Your task to perform on an android device: Clear all items from cart on newegg.com. Add razer naga to the cart on newegg.com Image 0: 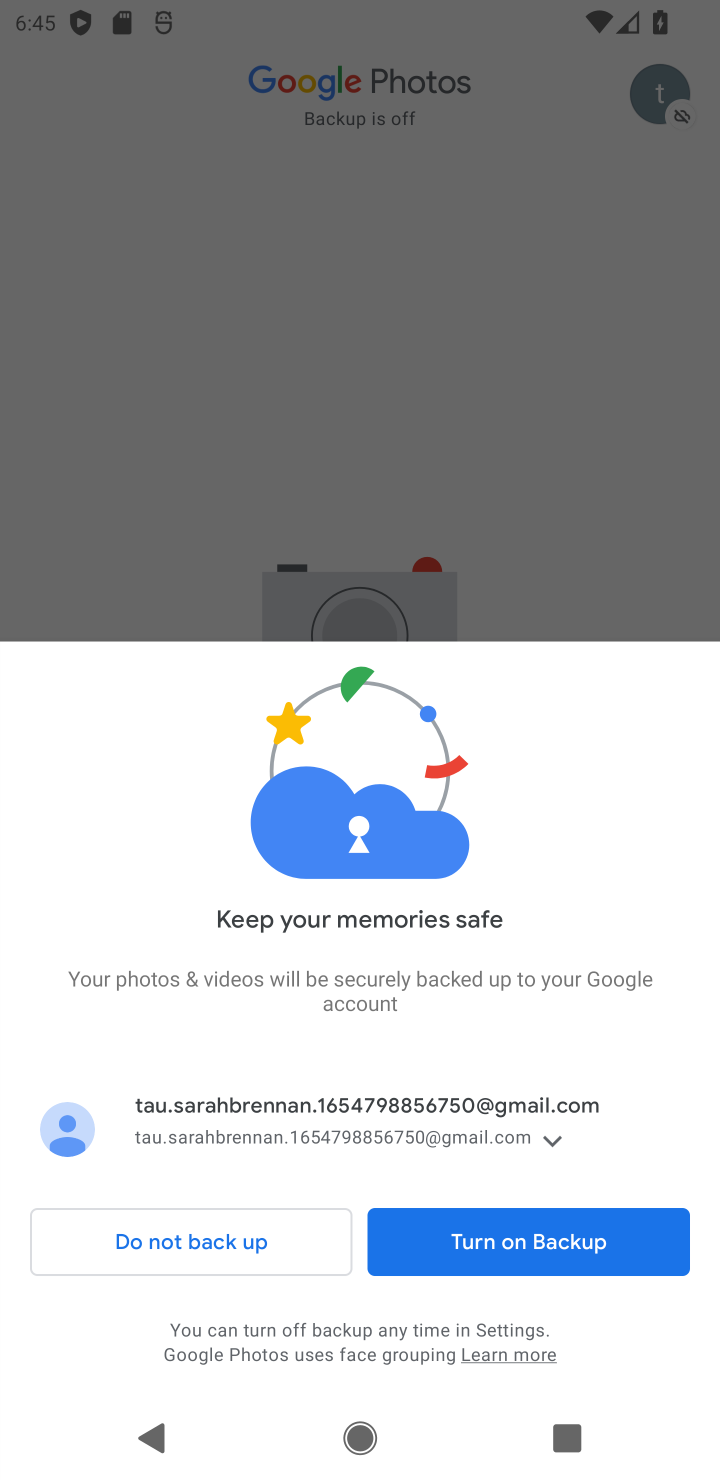
Step 0: press home button
Your task to perform on an android device: Clear all items from cart on newegg.com. Add razer naga to the cart on newegg.com Image 1: 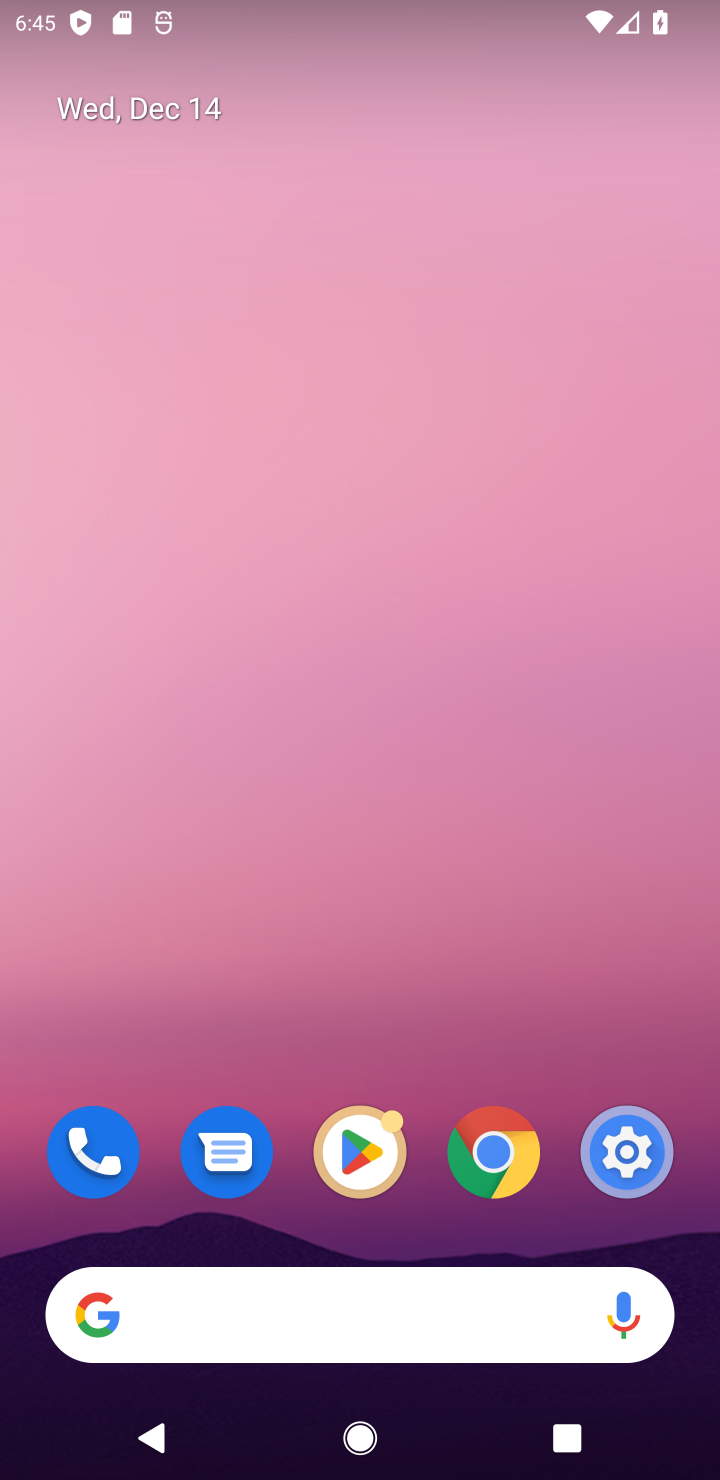
Step 1: click (506, 1167)
Your task to perform on an android device: Clear all items from cart on newegg.com. Add razer naga to the cart on newegg.com Image 2: 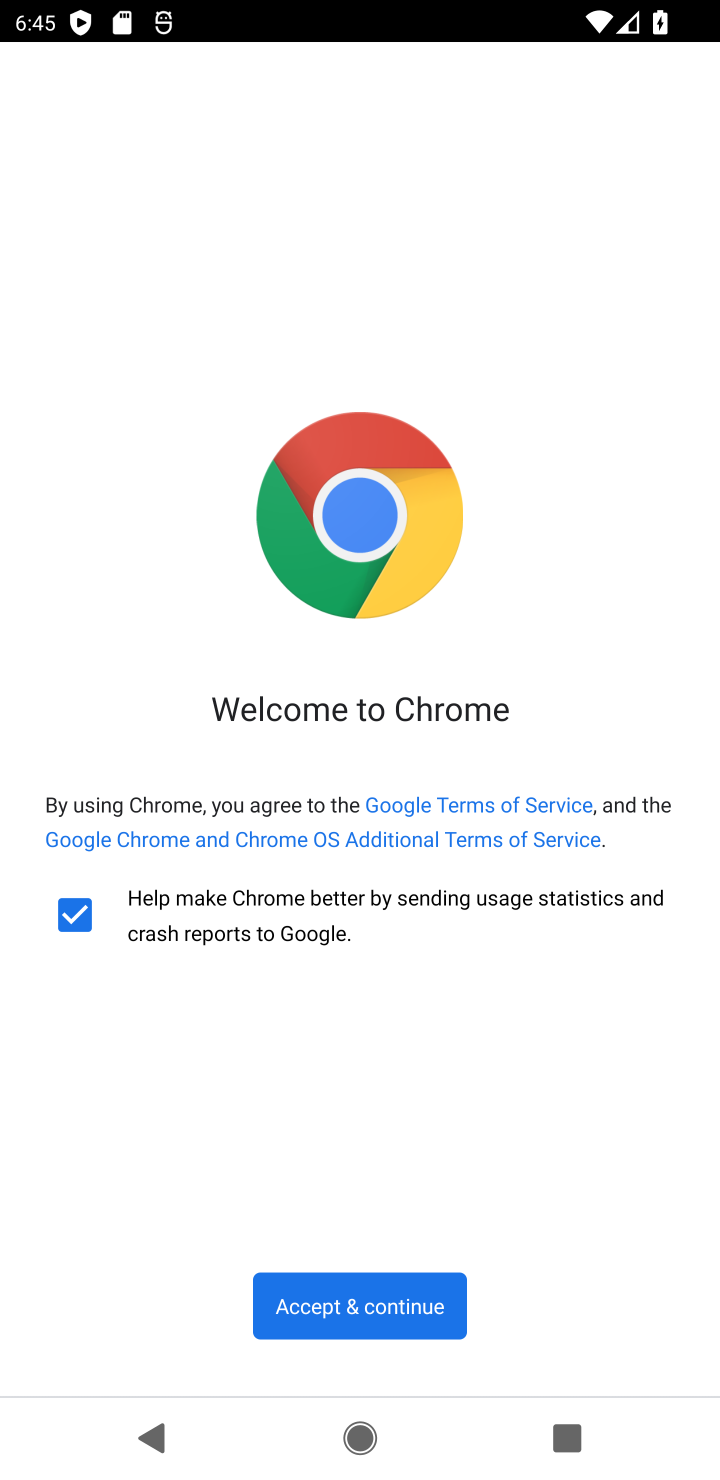
Step 2: click (306, 1310)
Your task to perform on an android device: Clear all items from cart on newegg.com. Add razer naga to the cart on newegg.com Image 3: 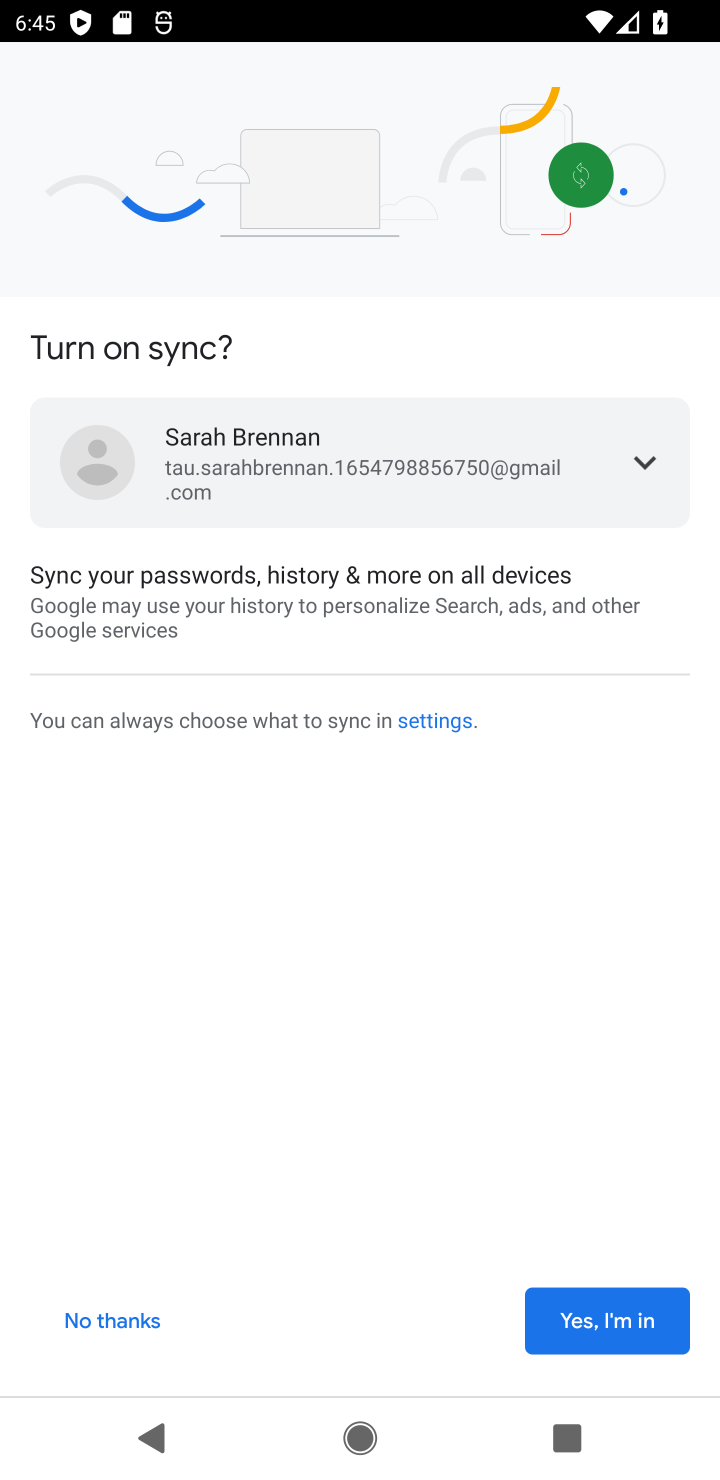
Step 3: click (51, 1326)
Your task to perform on an android device: Clear all items from cart on newegg.com. Add razer naga to the cart on newegg.com Image 4: 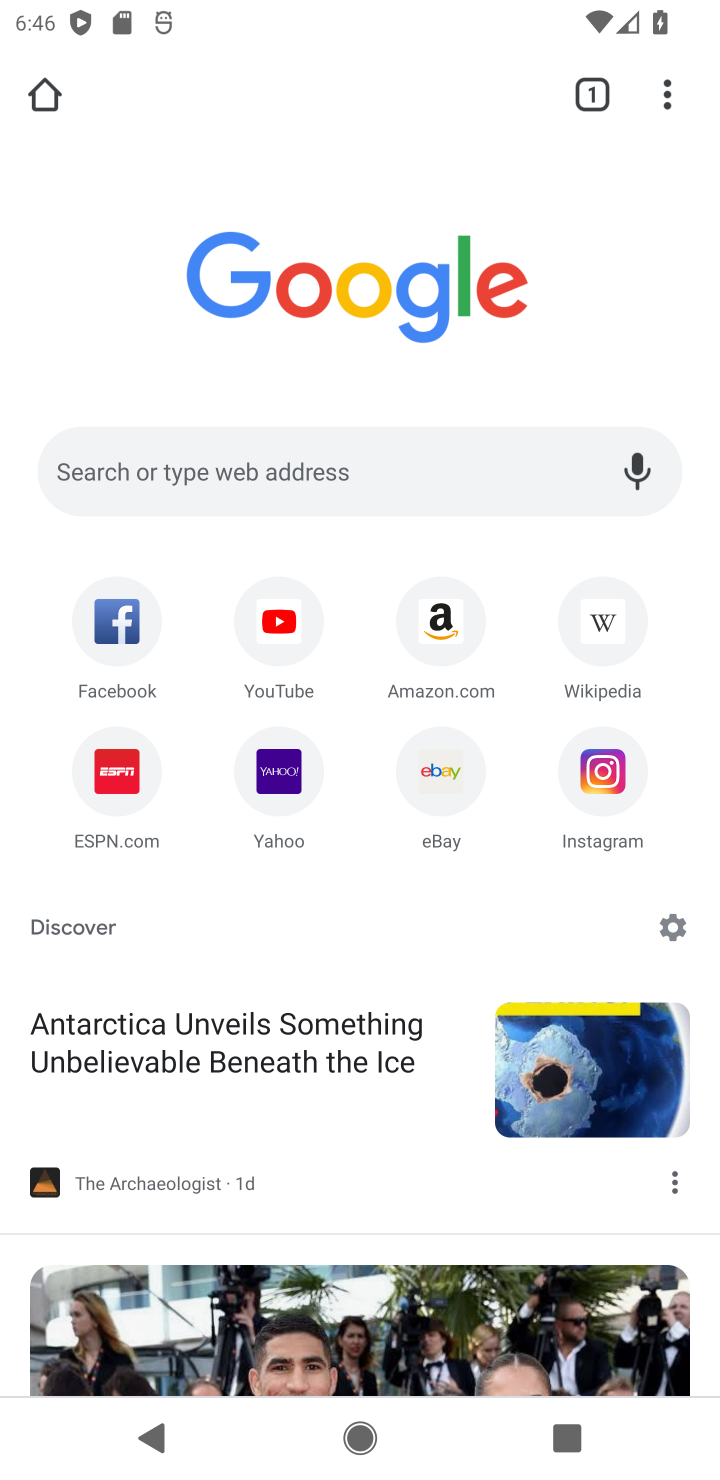
Step 4: click (259, 474)
Your task to perform on an android device: Clear all items from cart on newegg.com. Add razer naga to the cart on newegg.com Image 5: 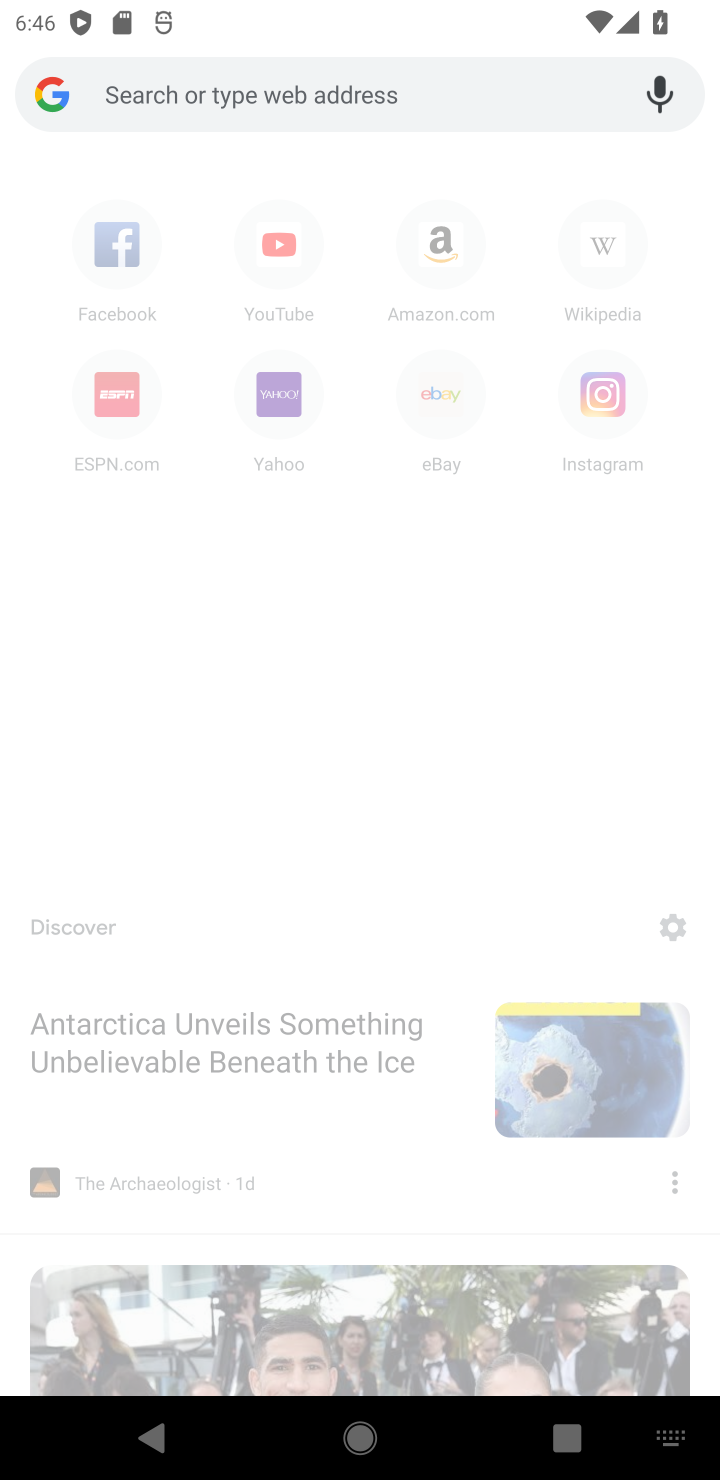
Step 5: type "newegg.com"
Your task to perform on an android device: Clear all items from cart on newegg.com. Add razer naga to the cart on newegg.com Image 6: 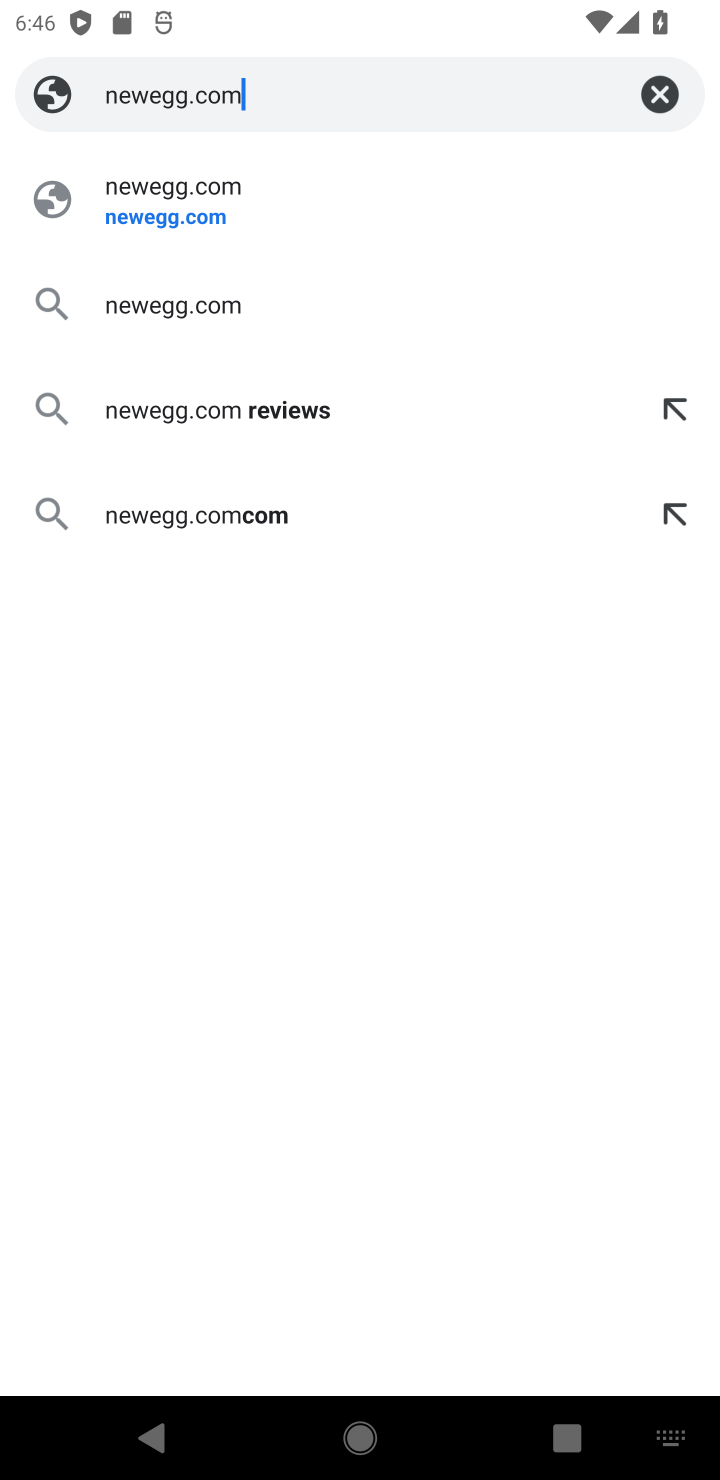
Step 6: click (167, 227)
Your task to perform on an android device: Clear all items from cart on newegg.com. Add razer naga to the cart on newegg.com Image 7: 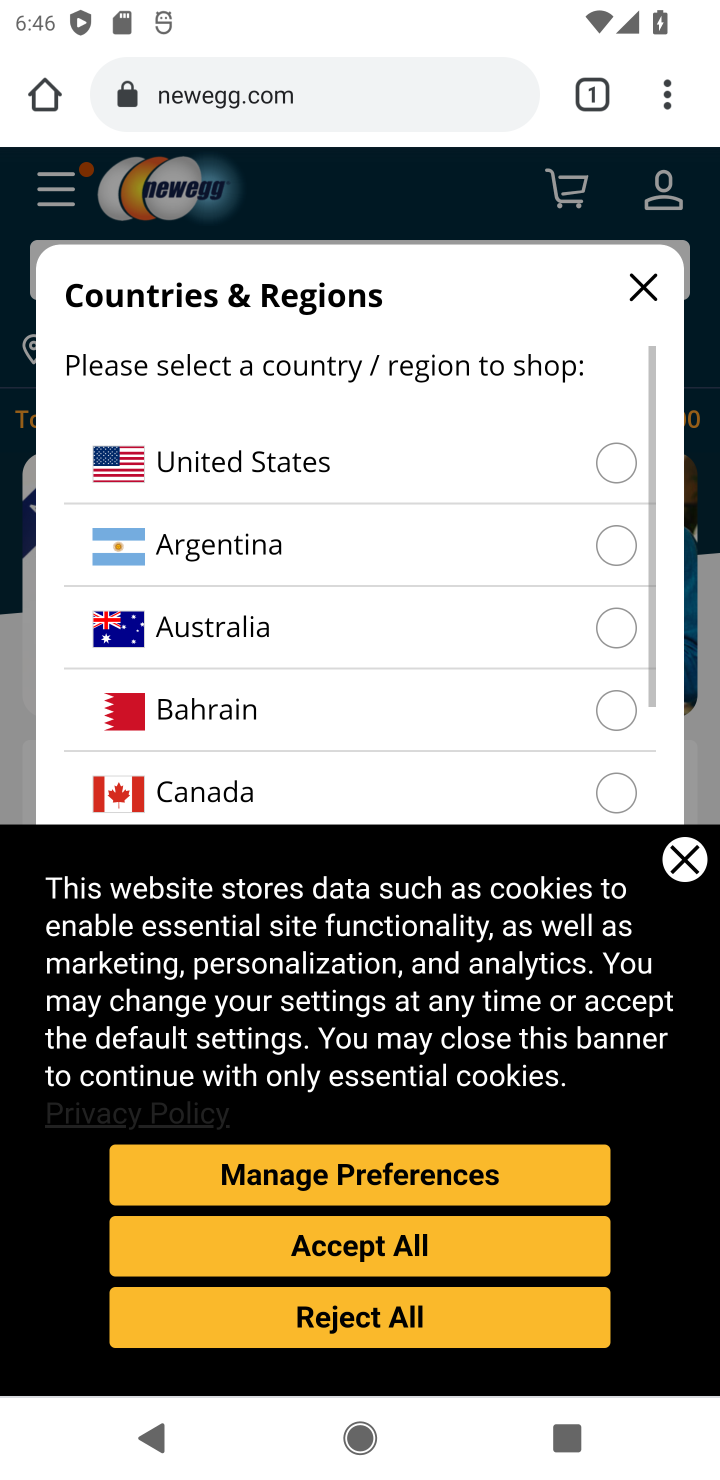
Step 7: click (688, 851)
Your task to perform on an android device: Clear all items from cart on newegg.com. Add razer naga to the cart on newegg.com Image 8: 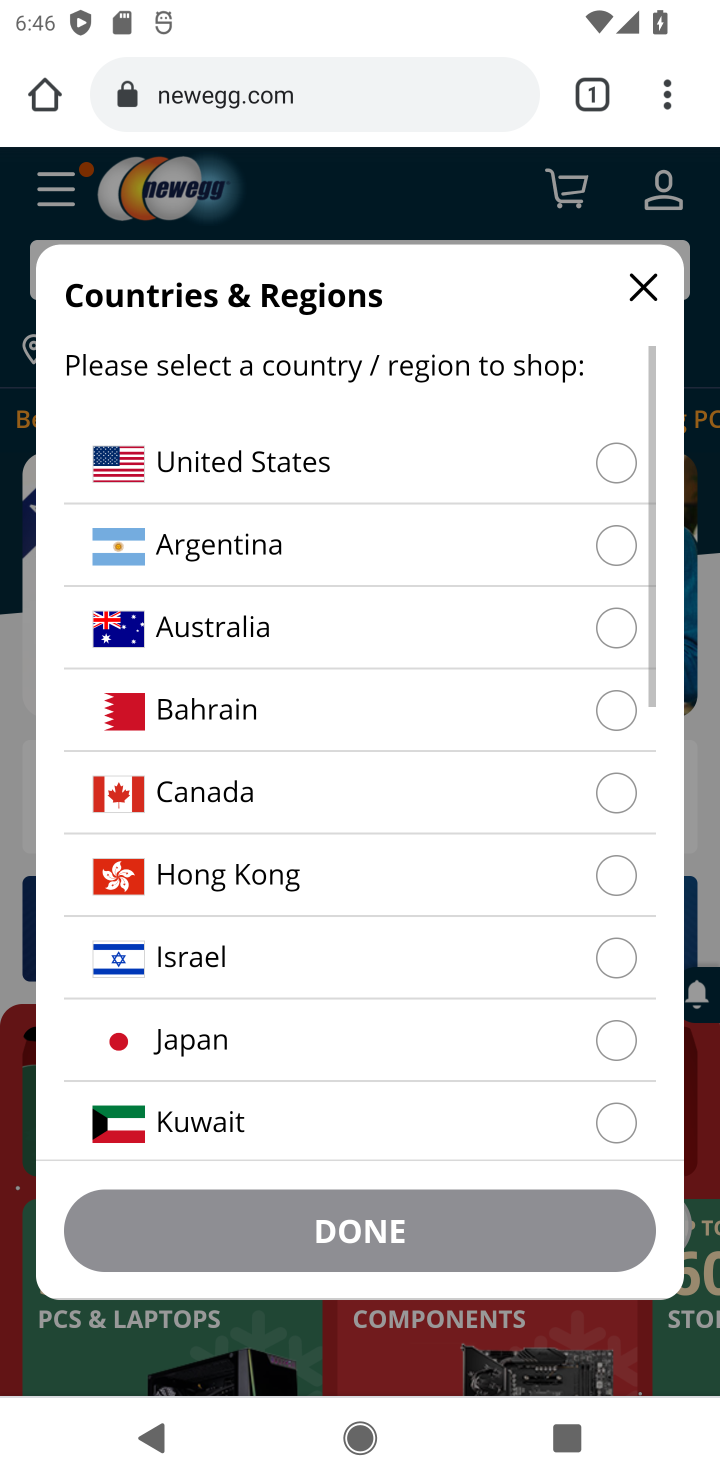
Step 8: click (244, 463)
Your task to perform on an android device: Clear all items from cart on newegg.com. Add razer naga to the cart on newegg.com Image 9: 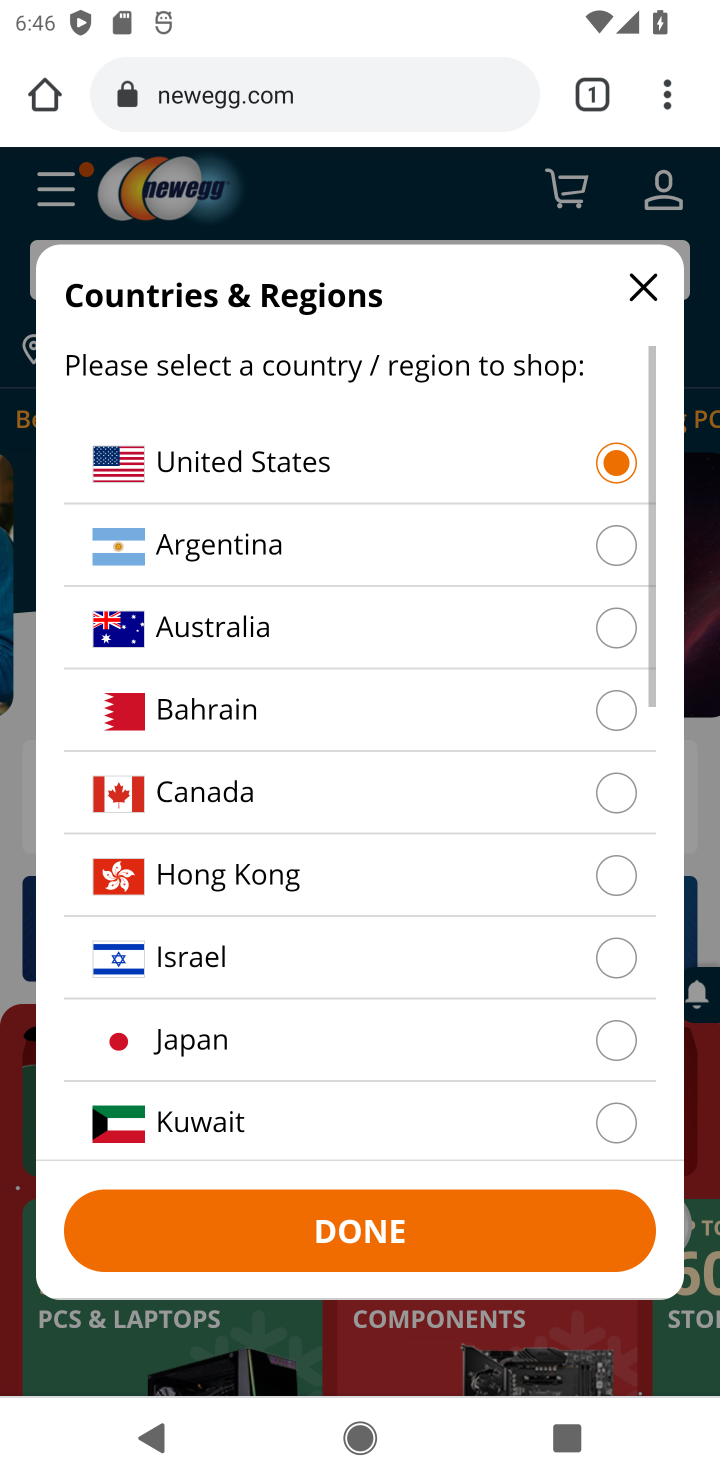
Step 9: click (345, 1226)
Your task to perform on an android device: Clear all items from cart on newegg.com. Add razer naga to the cart on newegg.com Image 10: 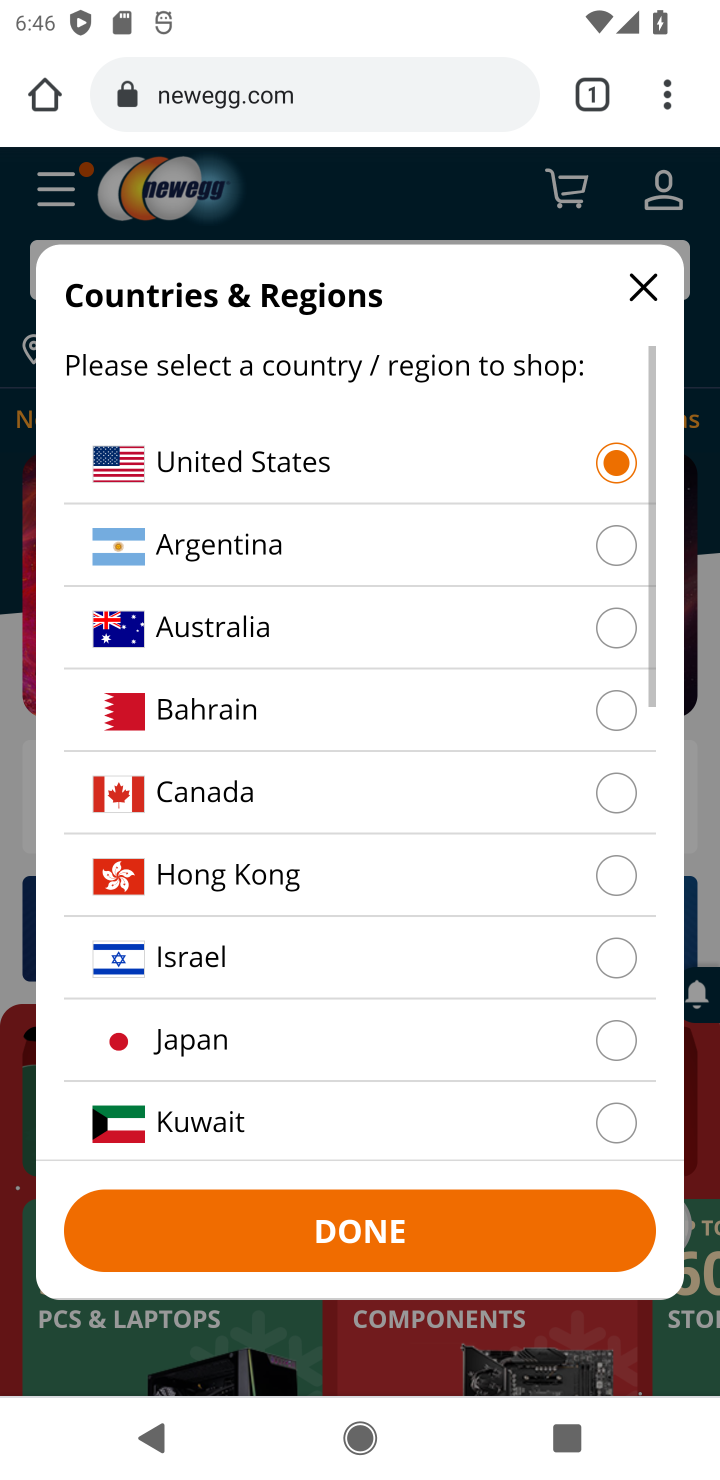
Step 10: click (345, 1226)
Your task to perform on an android device: Clear all items from cart on newegg.com. Add razer naga to the cart on newegg.com Image 11: 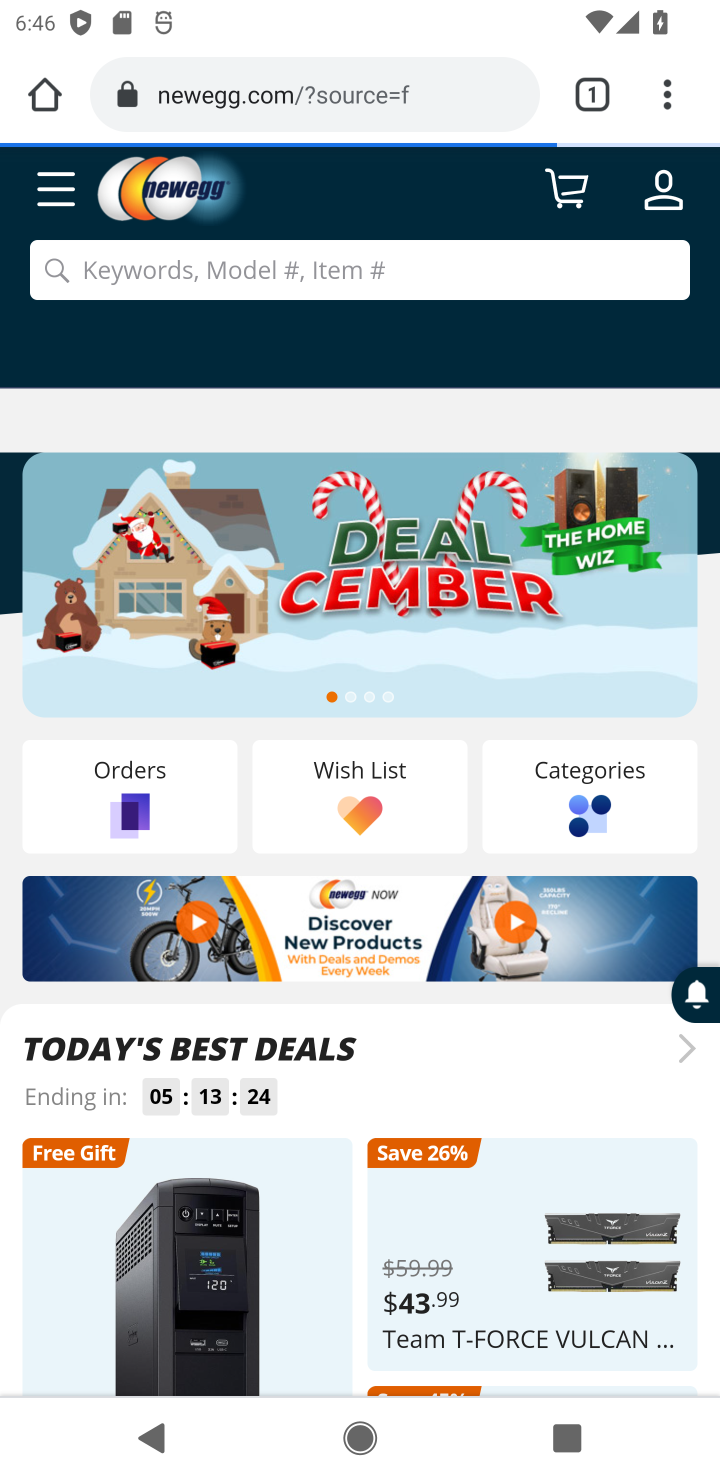
Step 11: click (549, 210)
Your task to perform on an android device: Clear all items from cart on newegg.com. Add razer naga to the cart on newegg.com Image 12: 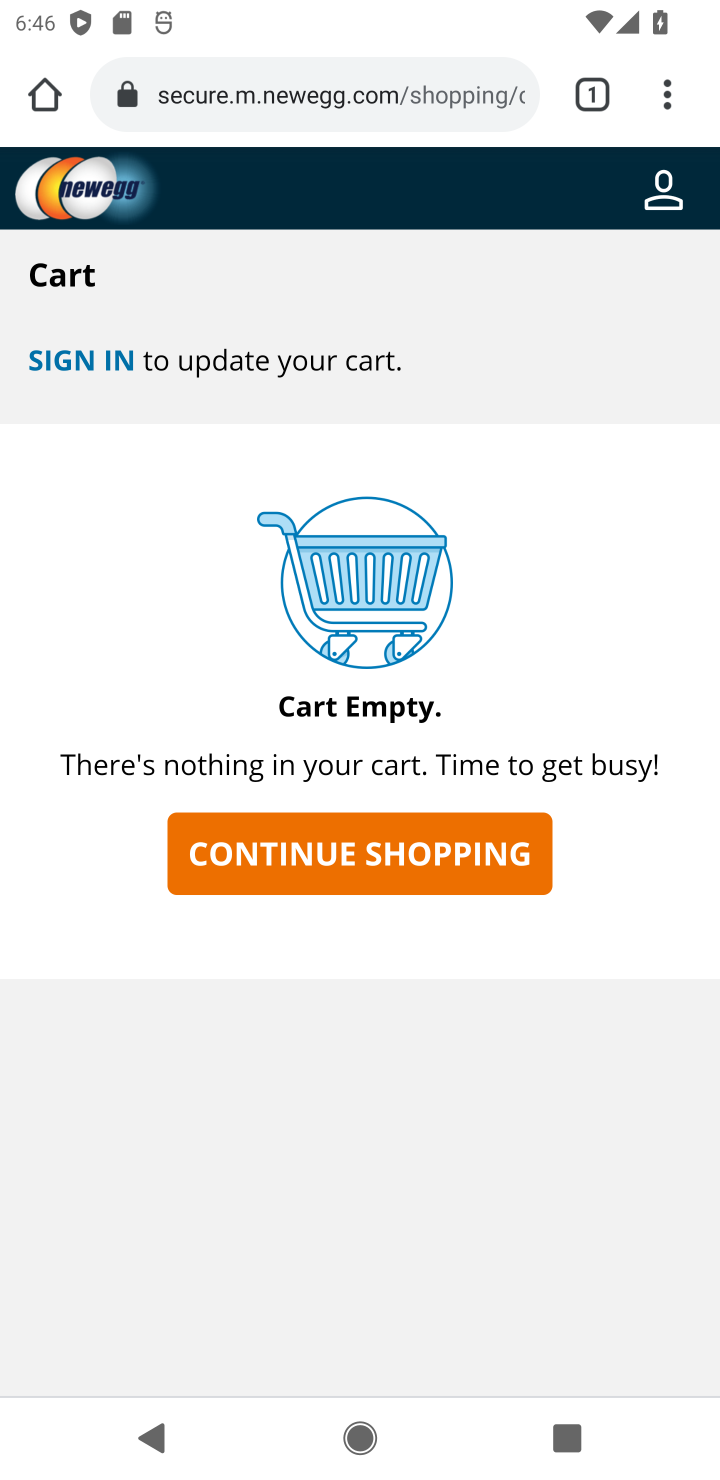
Step 12: click (438, 835)
Your task to perform on an android device: Clear all items from cart on newegg.com. Add razer naga to the cart on newegg.com Image 13: 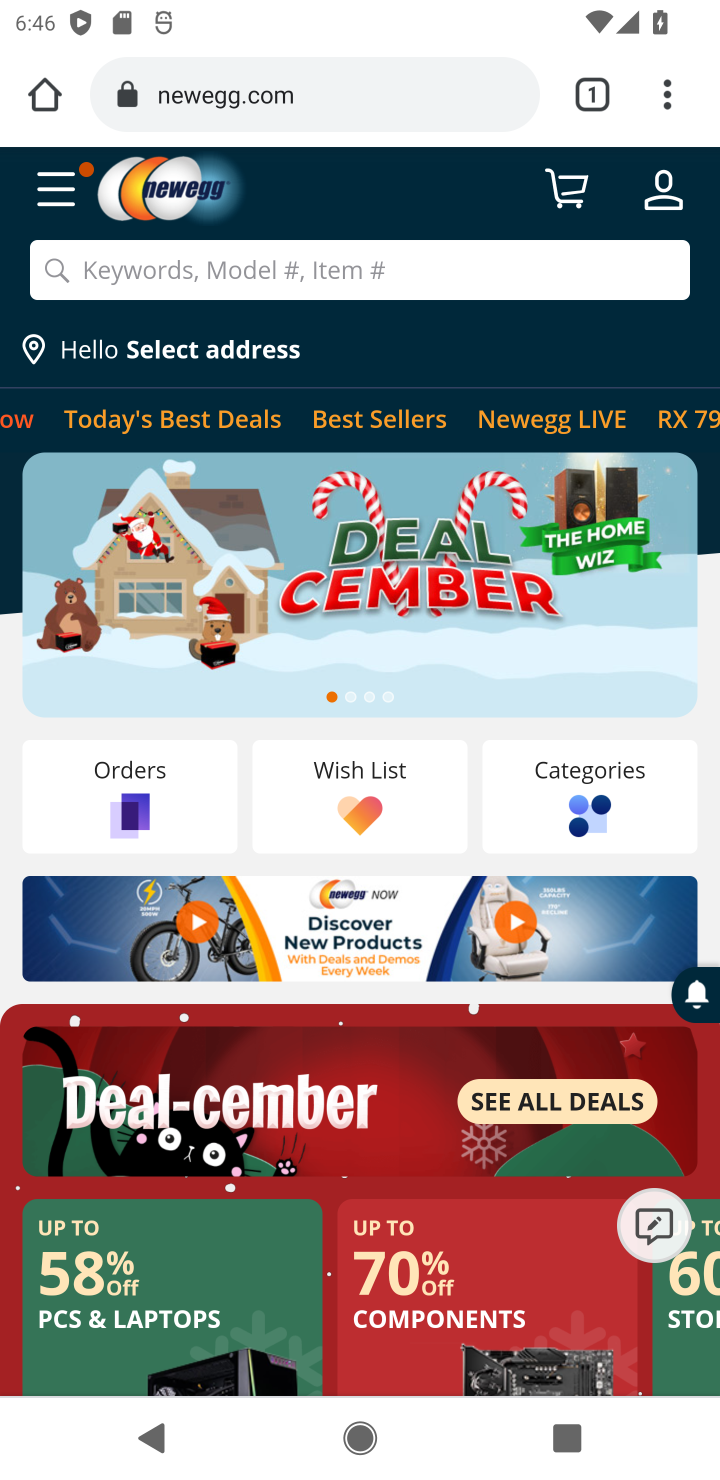
Step 13: click (213, 274)
Your task to perform on an android device: Clear all items from cart on newegg.com. Add razer naga to the cart on newegg.com Image 14: 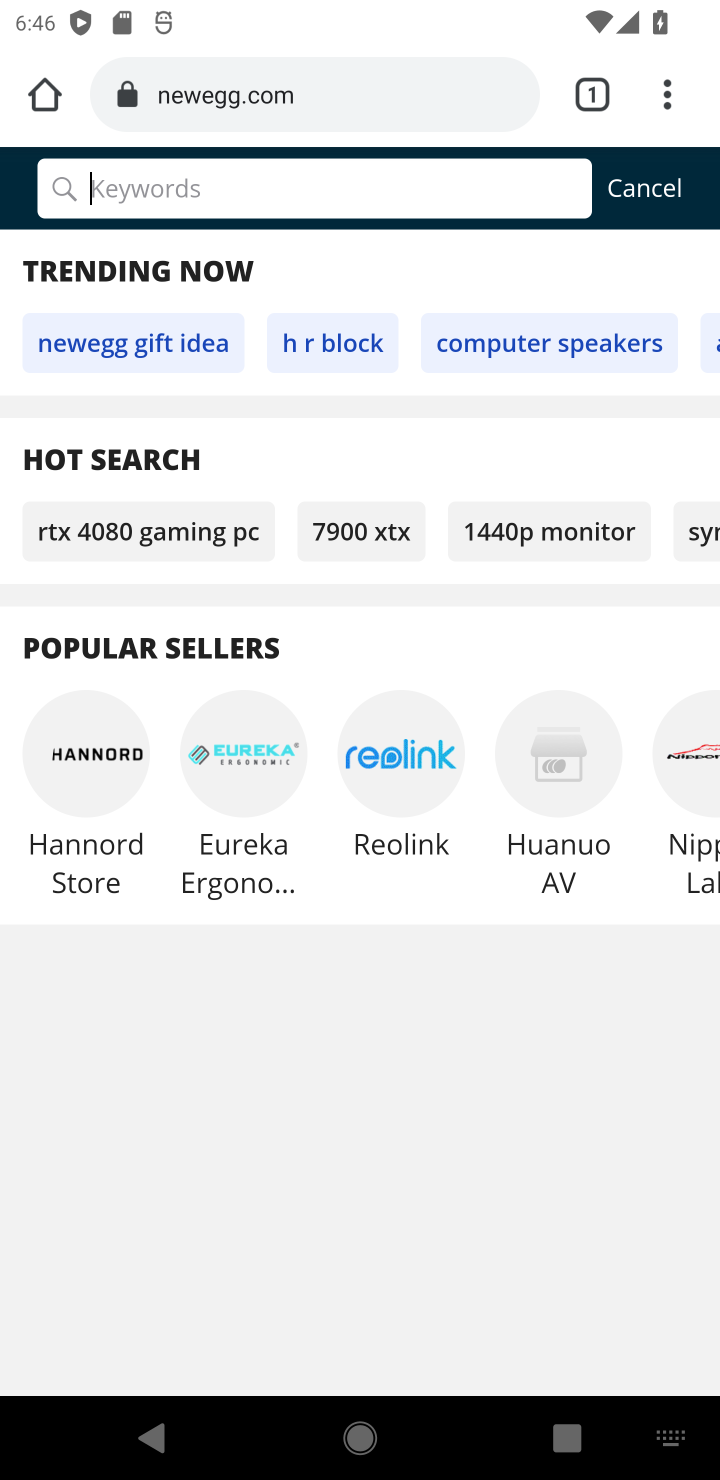
Step 14: type "razer naga"
Your task to perform on an android device: Clear all items from cart on newegg.com. Add razer naga to the cart on newegg.com Image 15: 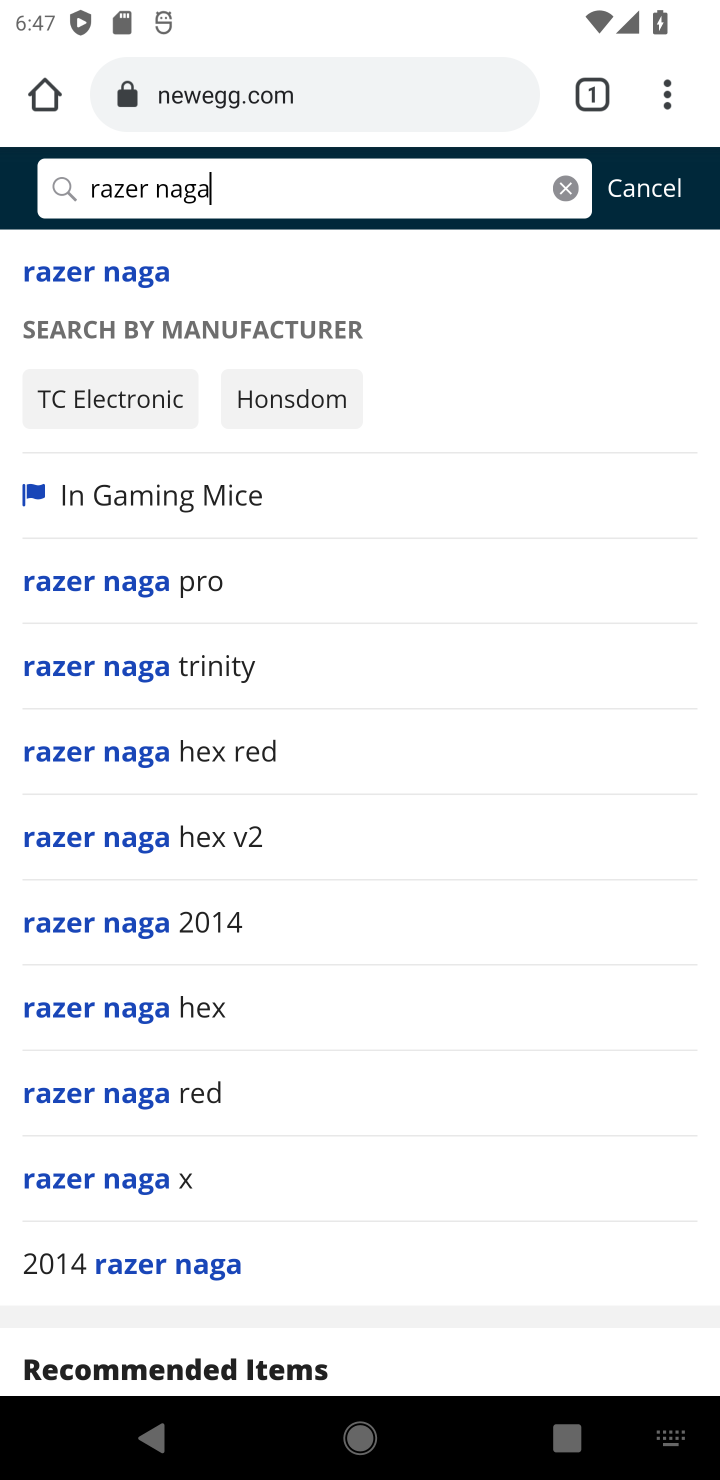
Step 15: click (120, 281)
Your task to perform on an android device: Clear all items from cart on newegg.com. Add razer naga to the cart on newegg.com Image 16: 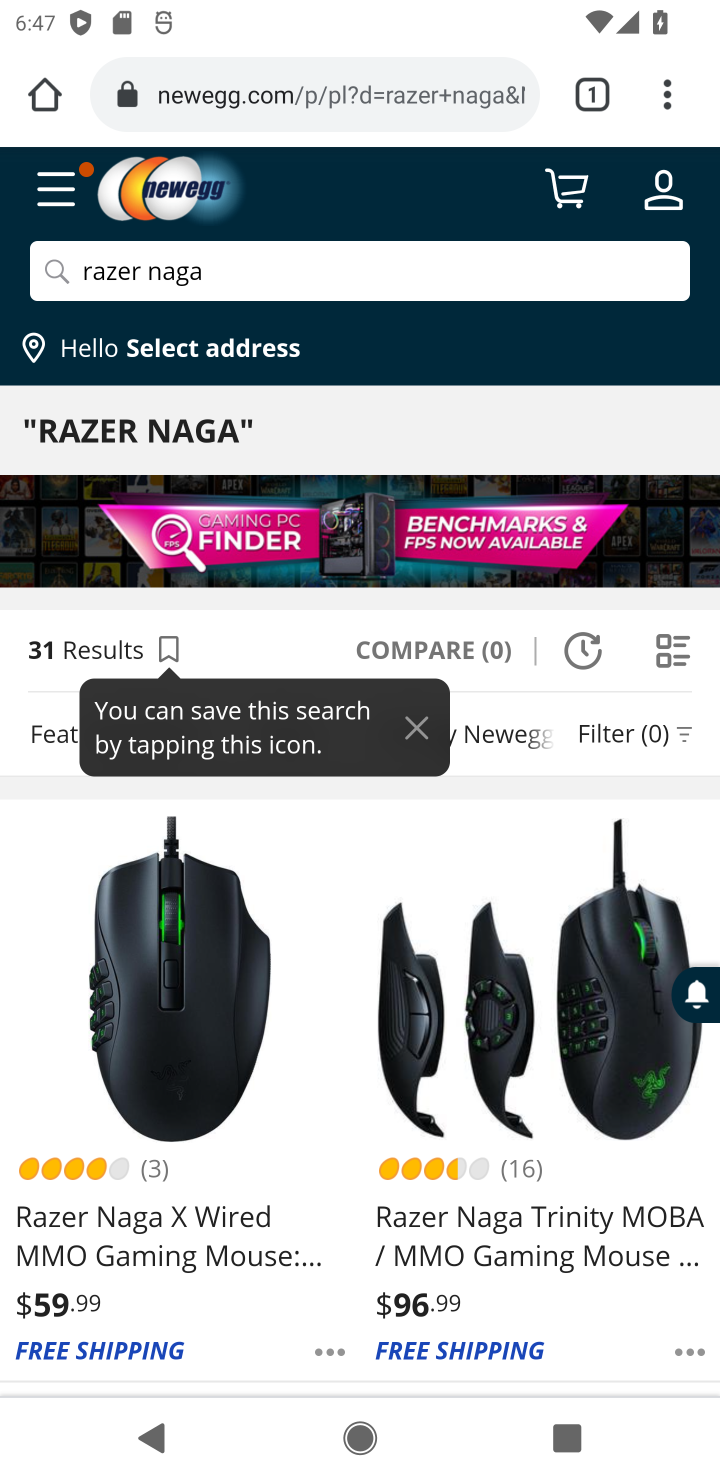
Step 16: click (58, 1233)
Your task to perform on an android device: Clear all items from cart on newegg.com. Add razer naga to the cart on newegg.com Image 17: 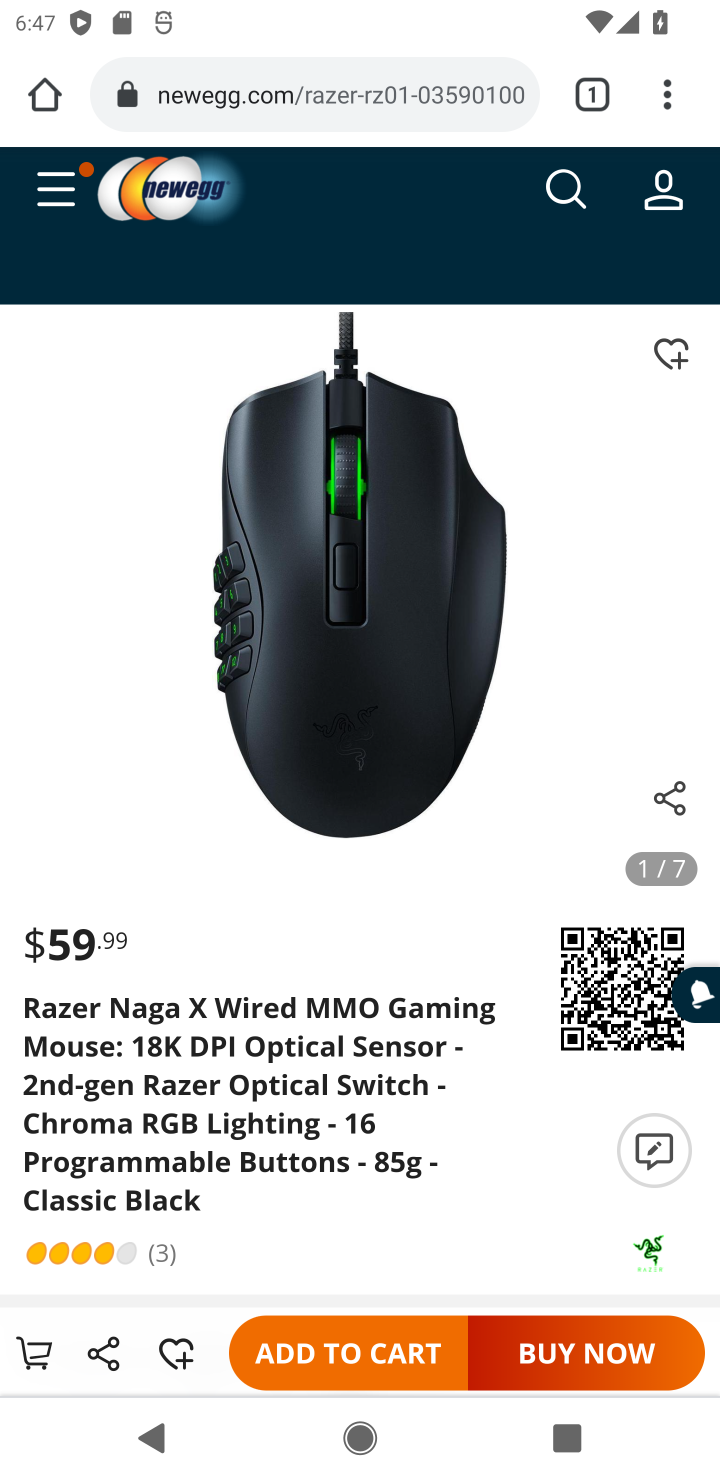
Step 17: click (349, 1363)
Your task to perform on an android device: Clear all items from cart on newegg.com. Add razer naga to the cart on newegg.com Image 18: 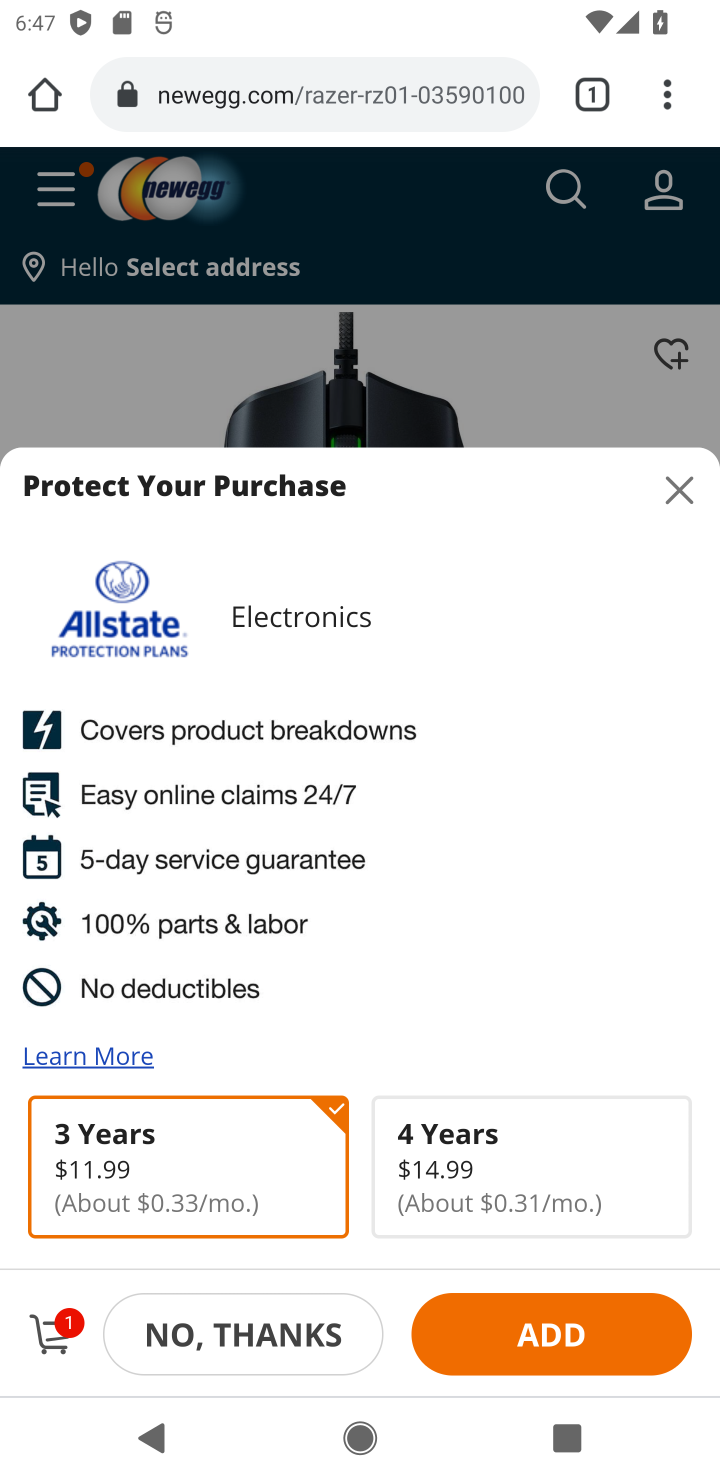
Step 18: task complete